Your task to perform on an android device: Find coffee shops on Maps Image 0: 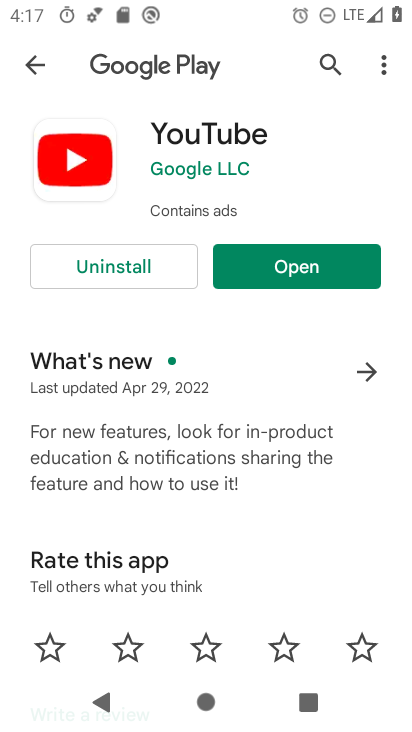
Step 0: press home button
Your task to perform on an android device: Find coffee shops on Maps Image 1: 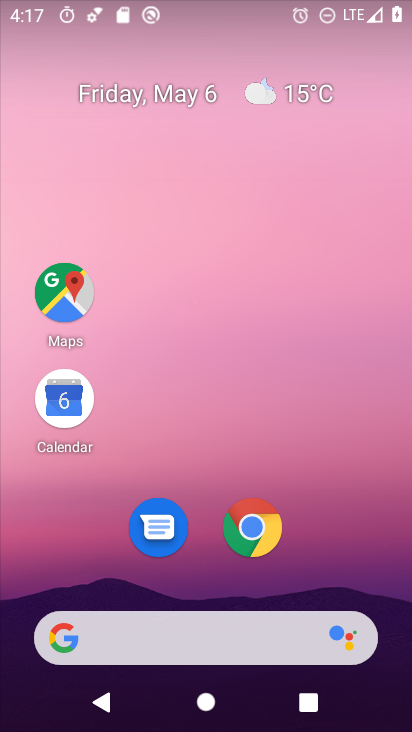
Step 1: drag from (336, 530) to (405, 37)
Your task to perform on an android device: Find coffee shops on Maps Image 2: 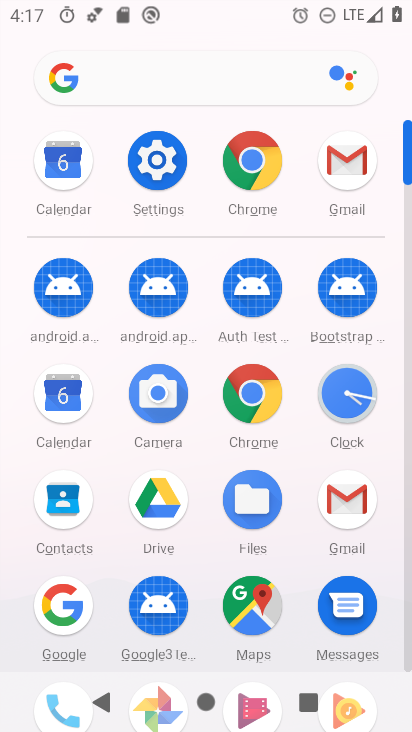
Step 2: drag from (285, 532) to (317, 159)
Your task to perform on an android device: Find coffee shops on Maps Image 3: 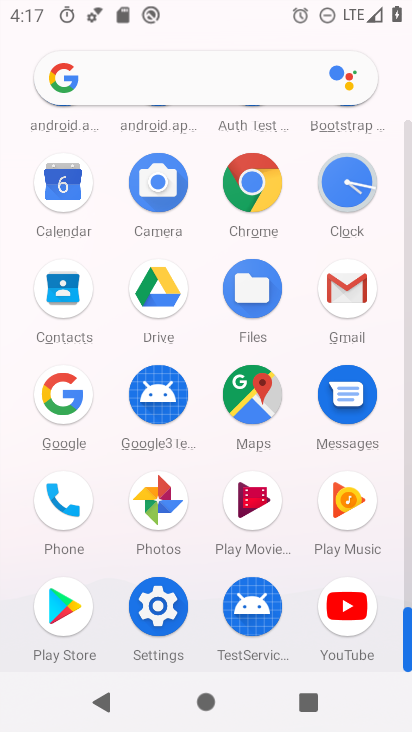
Step 3: click (257, 392)
Your task to perform on an android device: Find coffee shops on Maps Image 4: 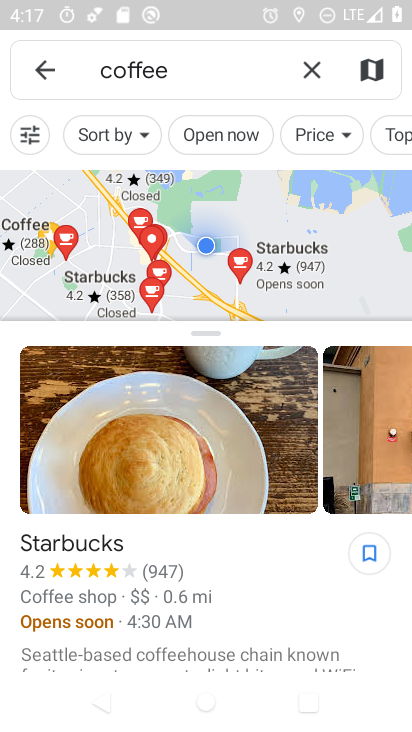
Step 4: click (217, 71)
Your task to perform on an android device: Find coffee shops on Maps Image 5: 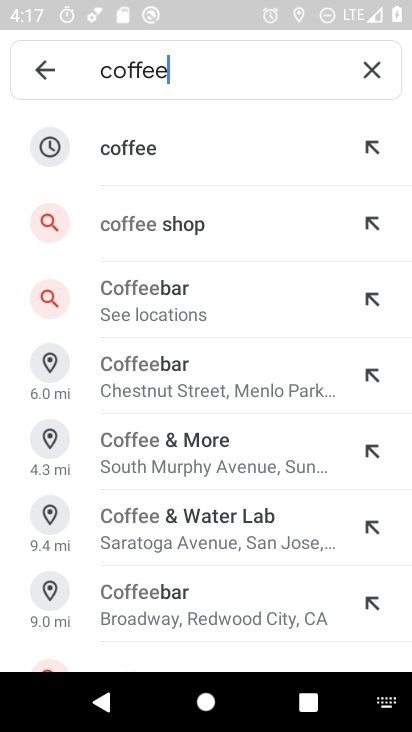
Step 5: type "shops"
Your task to perform on an android device: Find coffee shops on Maps Image 6: 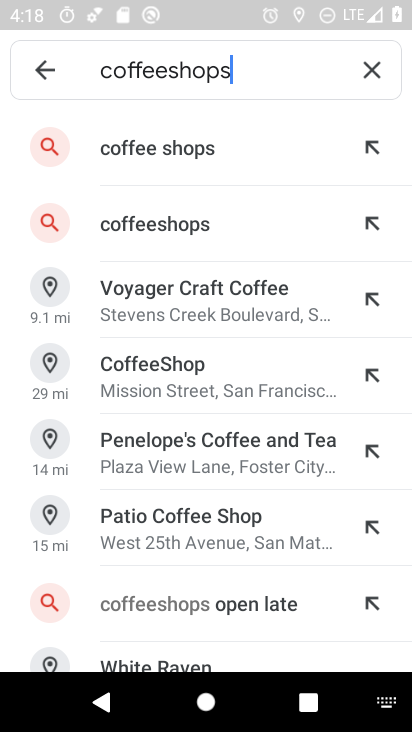
Step 6: click (151, 140)
Your task to perform on an android device: Find coffee shops on Maps Image 7: 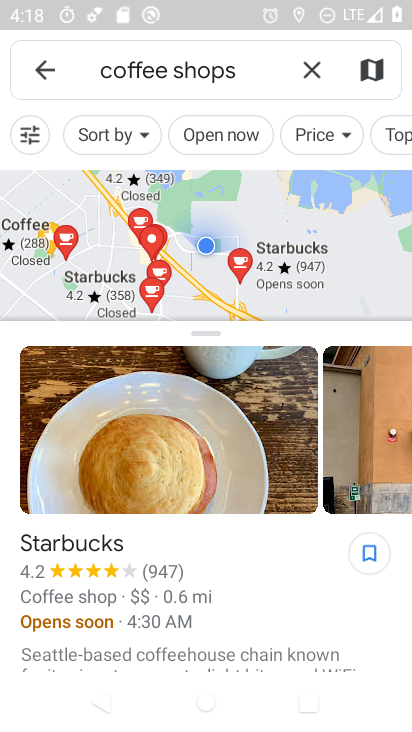
Step 7: task complete